Your task to perform on an android device: turn on sleep mode Image 0: 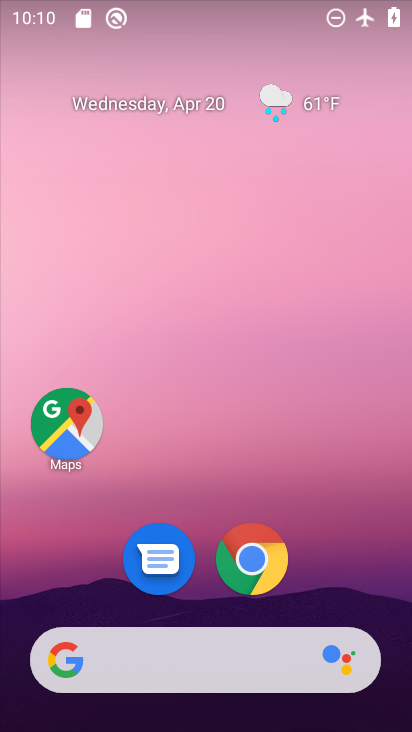
Step 0: drag from (392, 625) to (347, 366)
Your task to perform on an android device: turn on sleep mode Image 1: 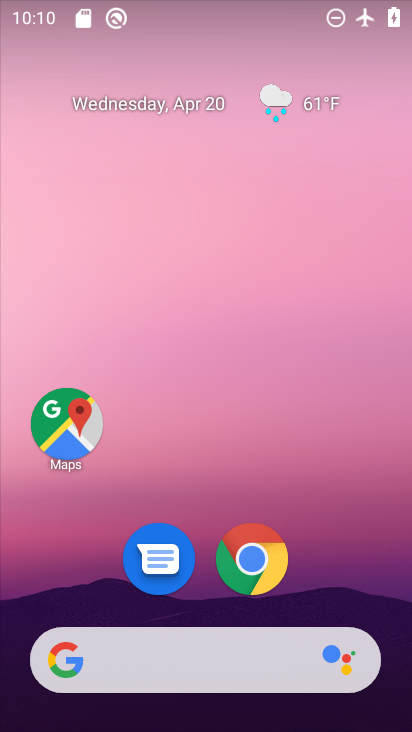
Step 1: drag from (380, 617) to (318, 224)
Your task to perform on an android device: turn on sleep mode Image 2: 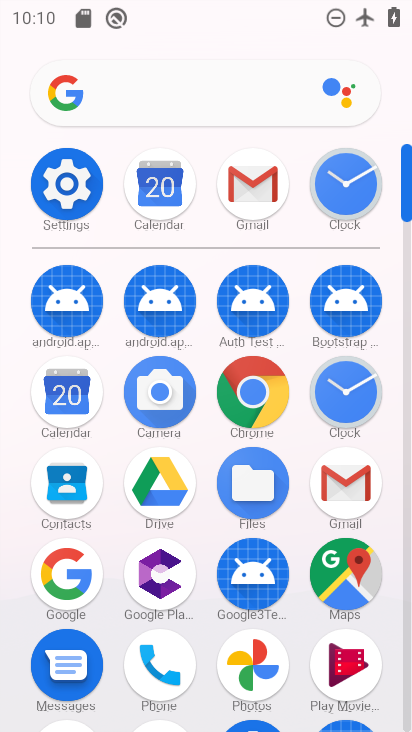
Step 2: click (405, 710)
Your task to perform on an android device: turn on sleep mode Image 3: 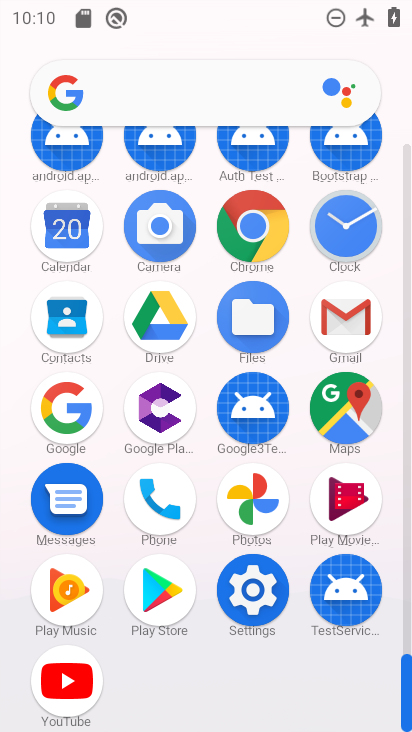
Step 3: click (254, 588)
Your task to perform on an android device: turn on sleep mode Image 4: 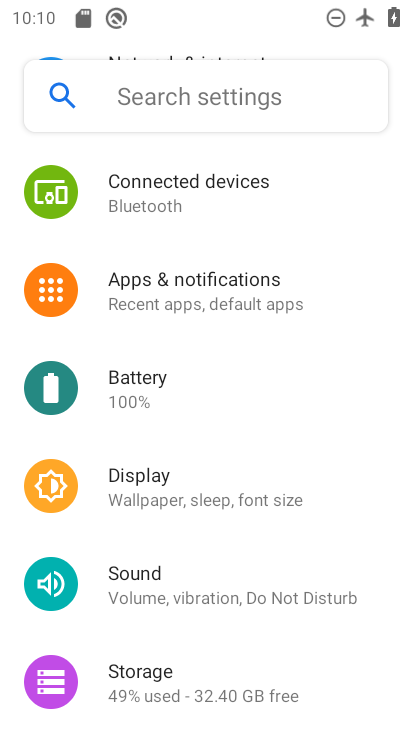
Step 4: click (149, 489)
Your task to perform on an android device: turn on sleep mode Image 5: 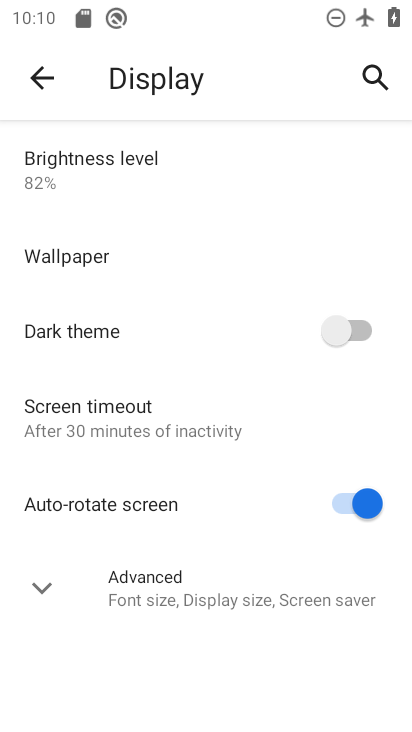
Step 5: click (39, 586)
Your task to perform on an android device: turn on sleep mode Image 6: 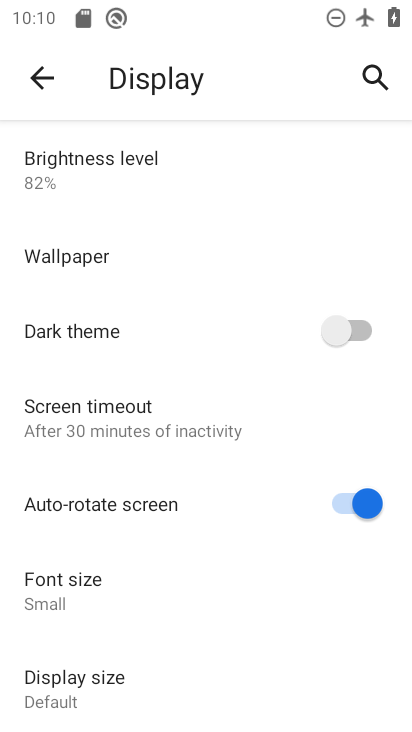
Step 6: task complete